Your task to perform on an android device: open wifi settings Image 0: 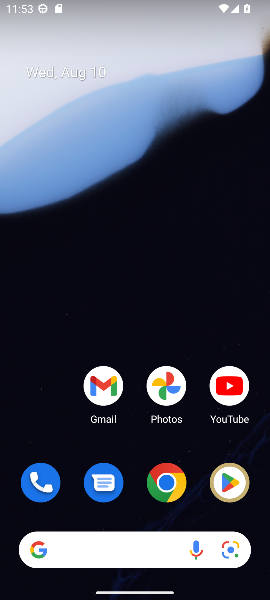
Step 0: drag from (51, 410) to (81, 111)
Your task to perform on an android device: open wifi settings Image 1: 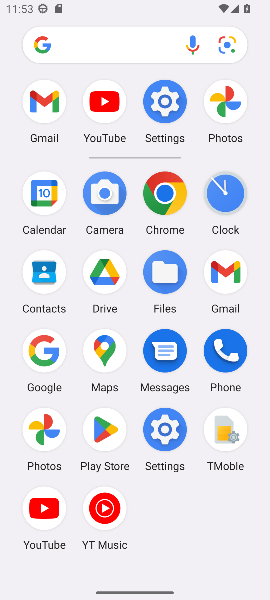
Step 1: click (163, 117)
Your task to perform on an android device: open wifi settings Image 2: 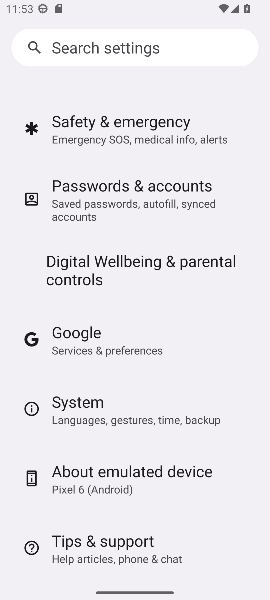
Step 2: task complete